Your task to perform on an android device: open app "DoorDash - Food Delivery" (install if not already installed), go to login, and select forgot password Image 0: 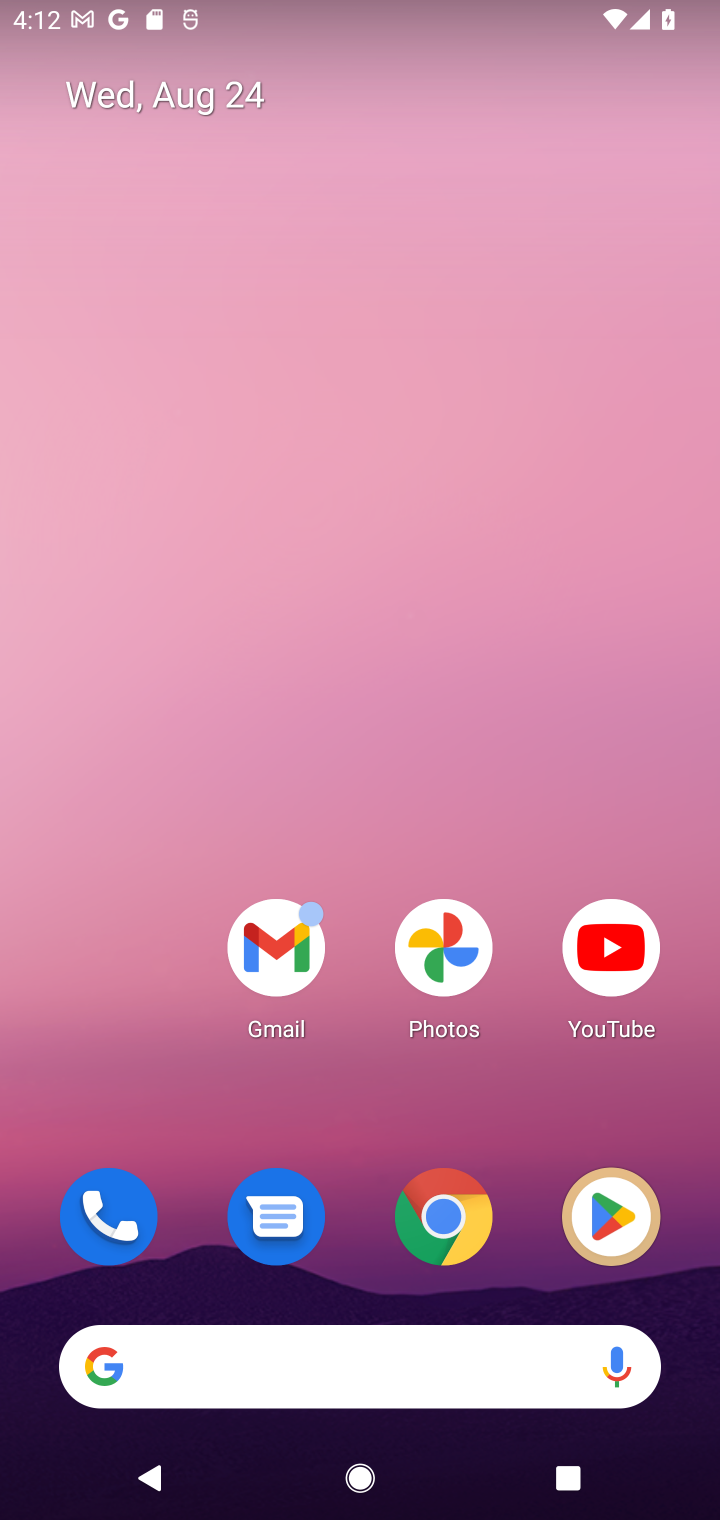
Step 0: click (612, 1211)
Your task to perform on an android device: open app "DoorDash - Food Delivery" (install if not already installed), go to login, and select forgot password Image 1: 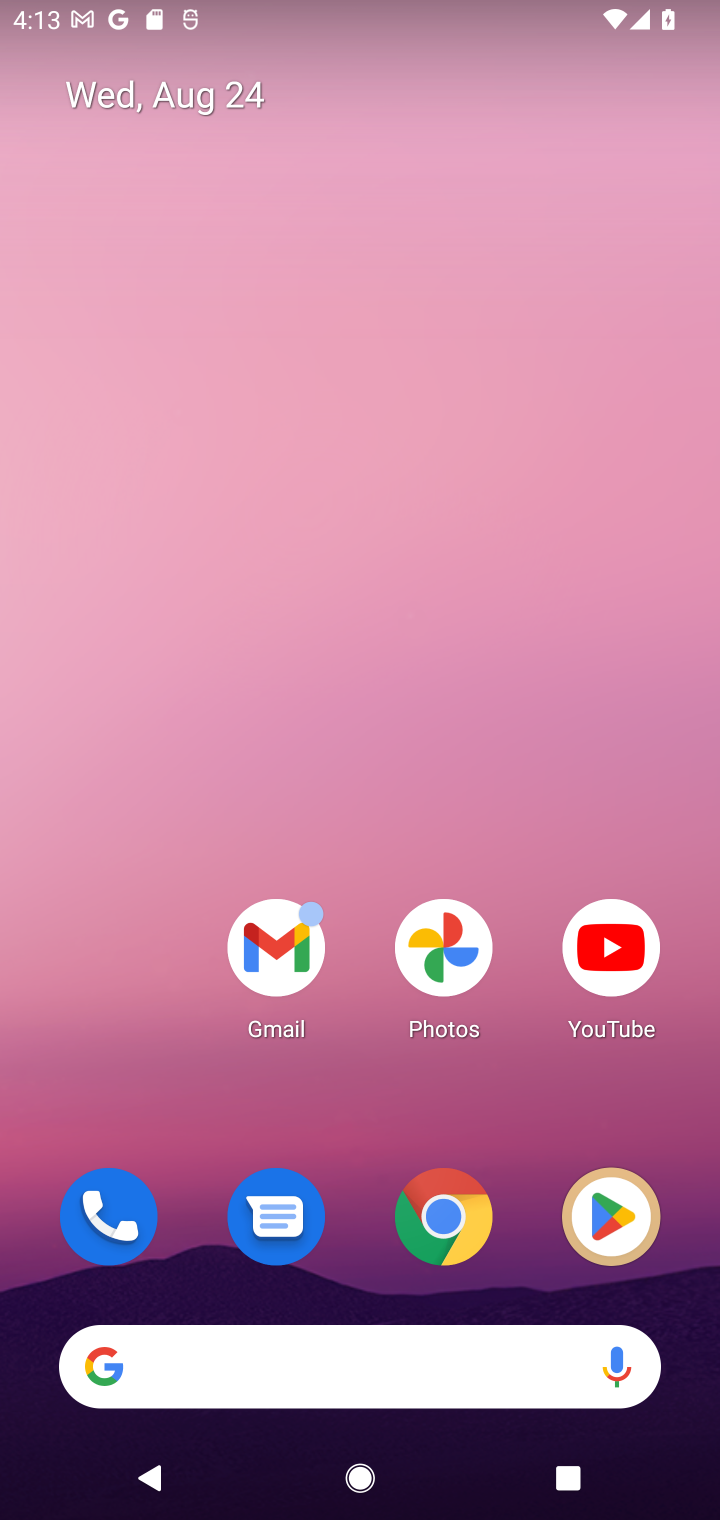
Step 1: click (569, 1233)
Your task to perform on an android device: open app "DoorDash - Food Delivery" (install if not already installed), go to login, and select forgot password Image 2: 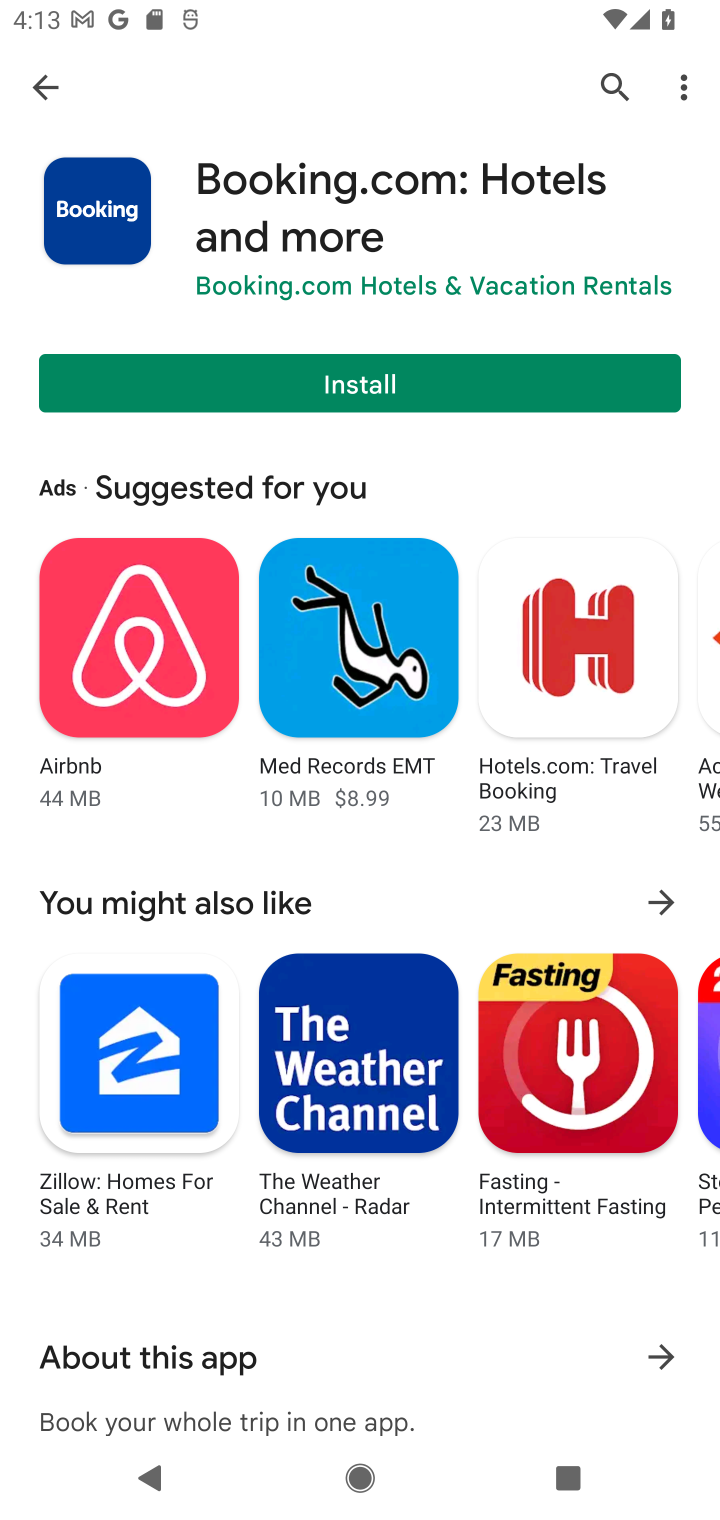
Step 2: click (609, 89)
Your task to perform on an android device: open app "DoorDash - Food Delivery" (install if not already installed), go to login, and select forgot password Image 3: 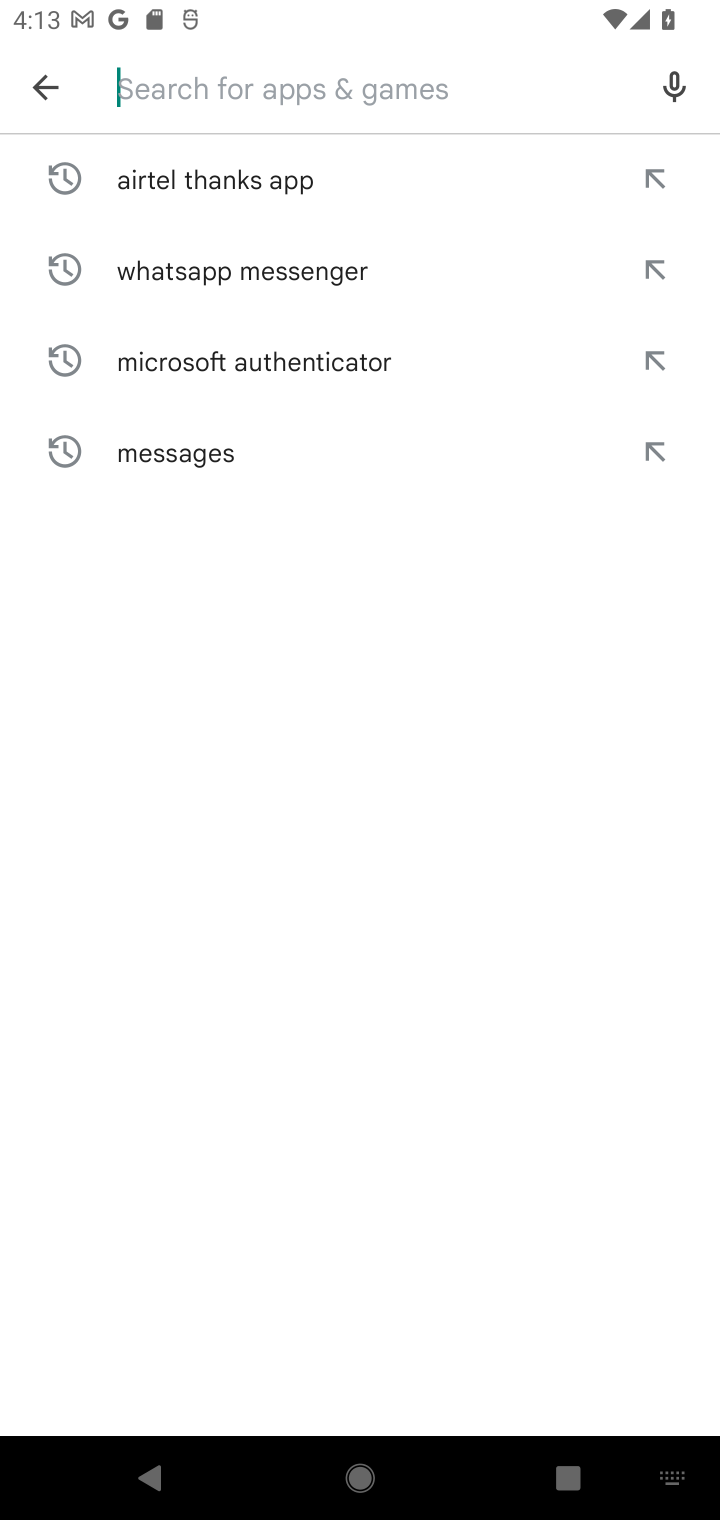
Step 3: type "DoorDash - Food Delivery"
Your task to perform on an android device: open app "DoorDash - Food Delivery" (install if not already installed), go to login, and select forgot password Image 4: 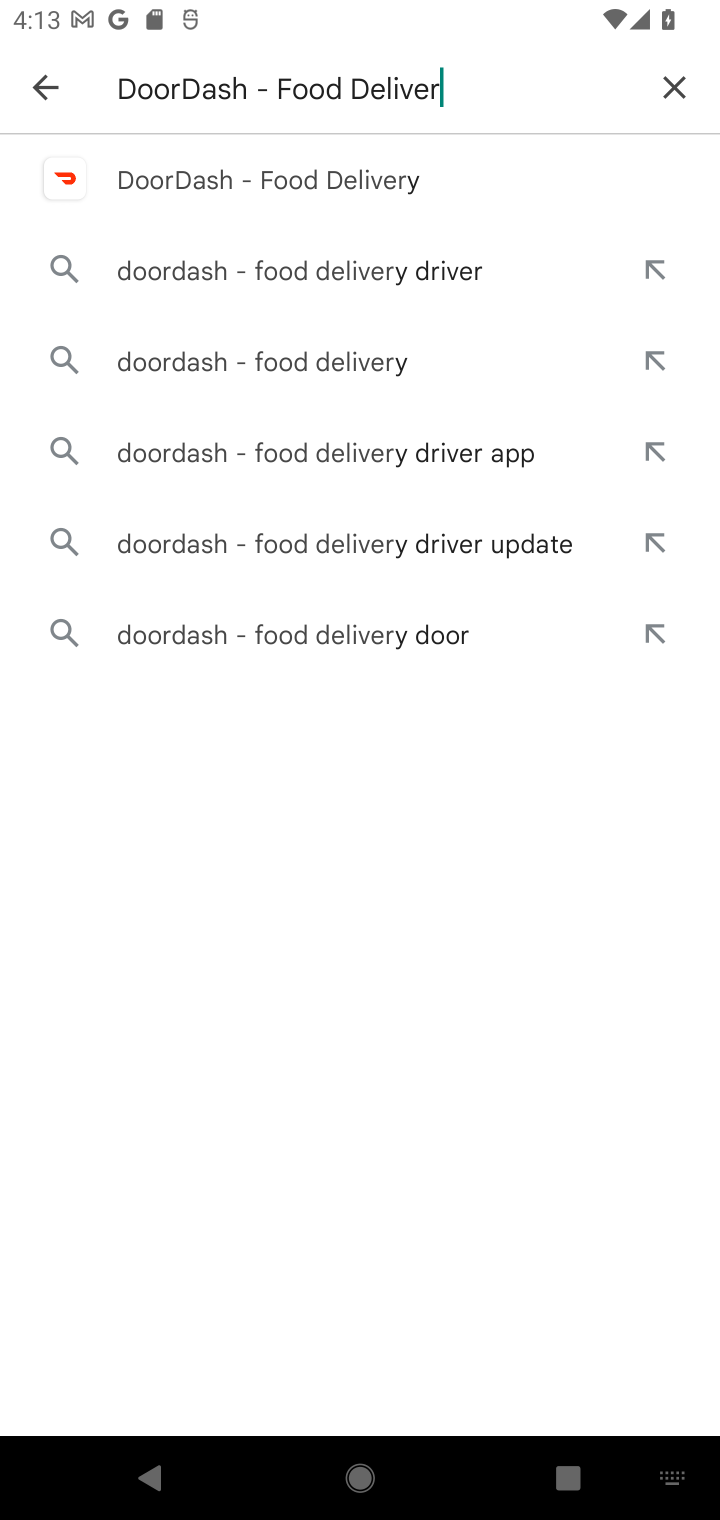
Step 4: type ""
Your task to perform on an android device: open app "DoorDash - Food Delivery" (install if not already installed), go to login, and select forgot password Image 5: 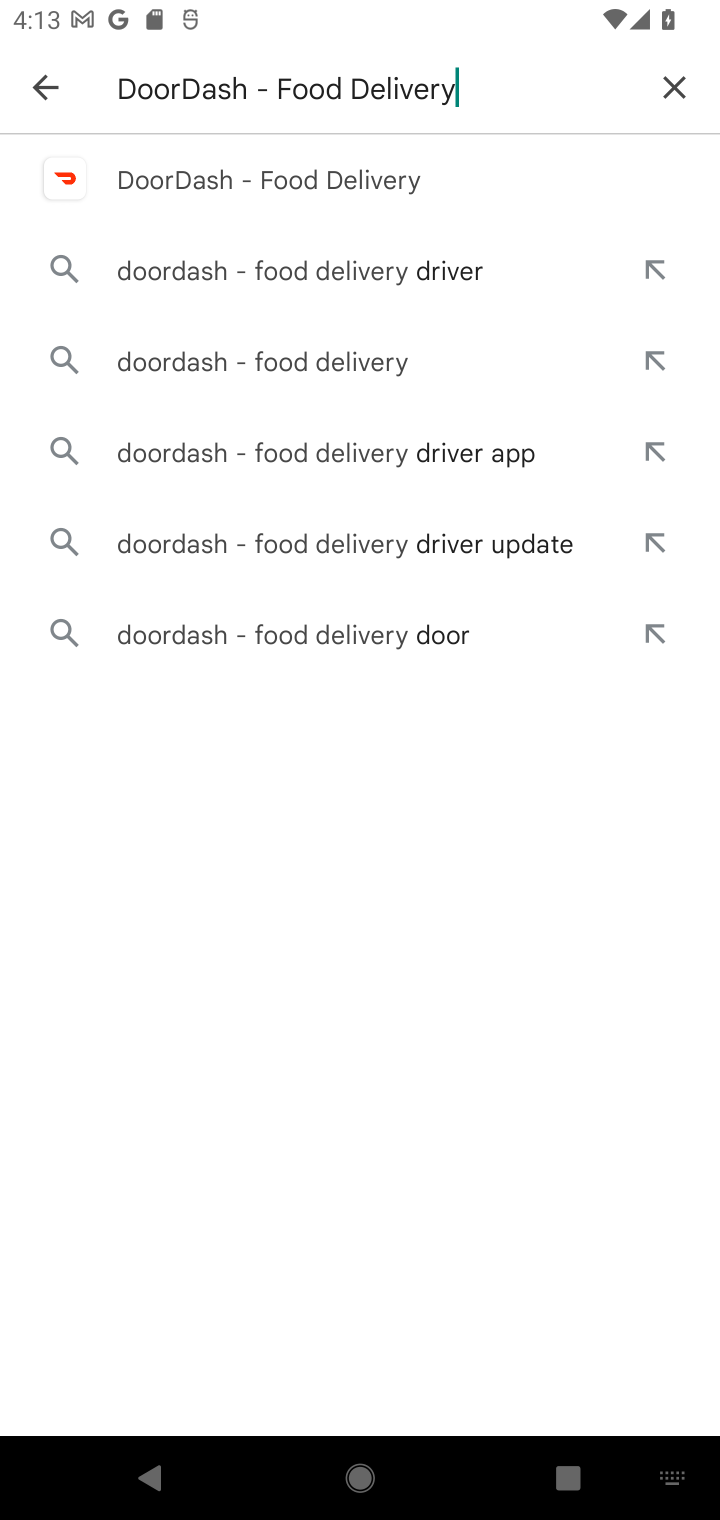
Step 5: click (287, 200)
Your task to perform on an android device: open app "DoorDash - Food Delivery" (install if not already installed), go to login, and select forgot password Image 6: 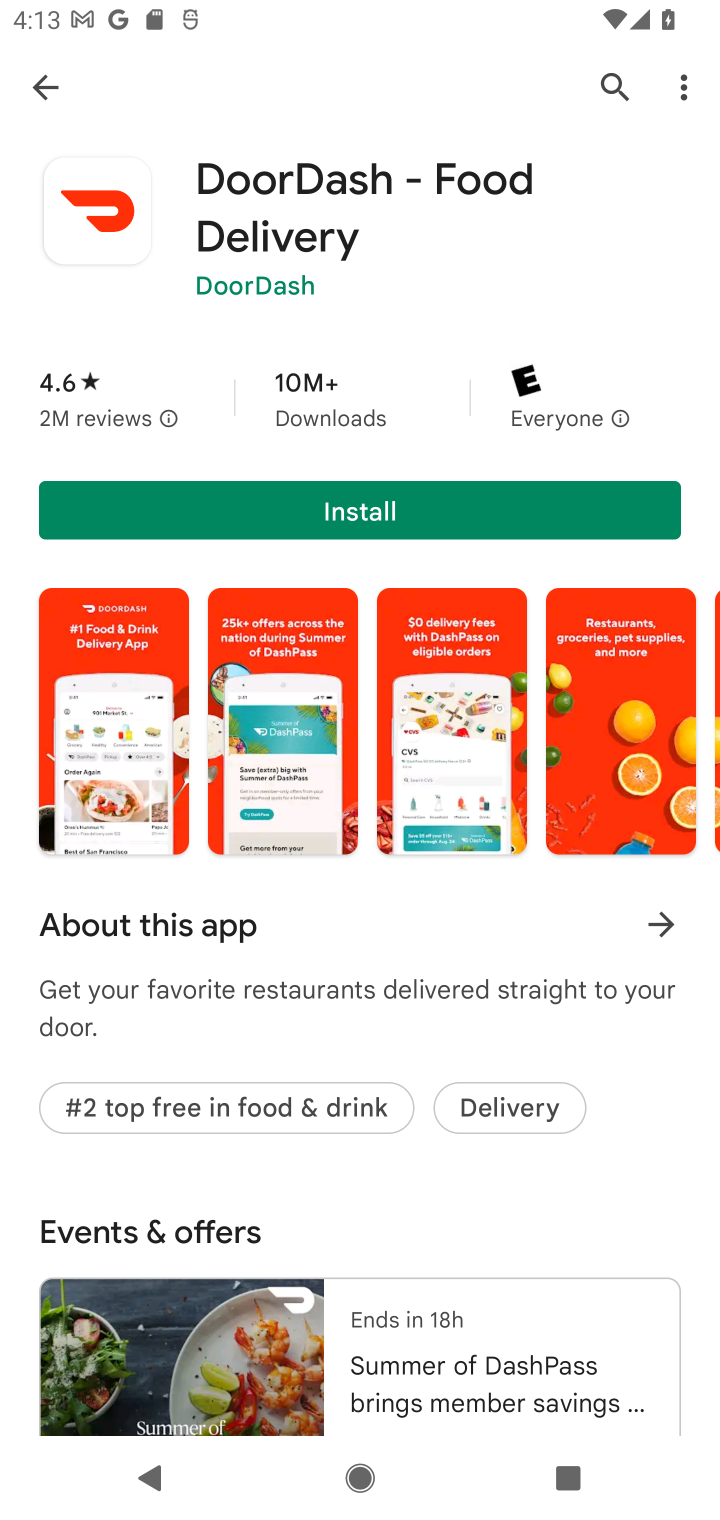
Step 6: click (373, 509)
Your task to perform on an android device: open app "DoorDash - Food Delivery" (install if not already installed), go to login, and select forgot password Image 7: 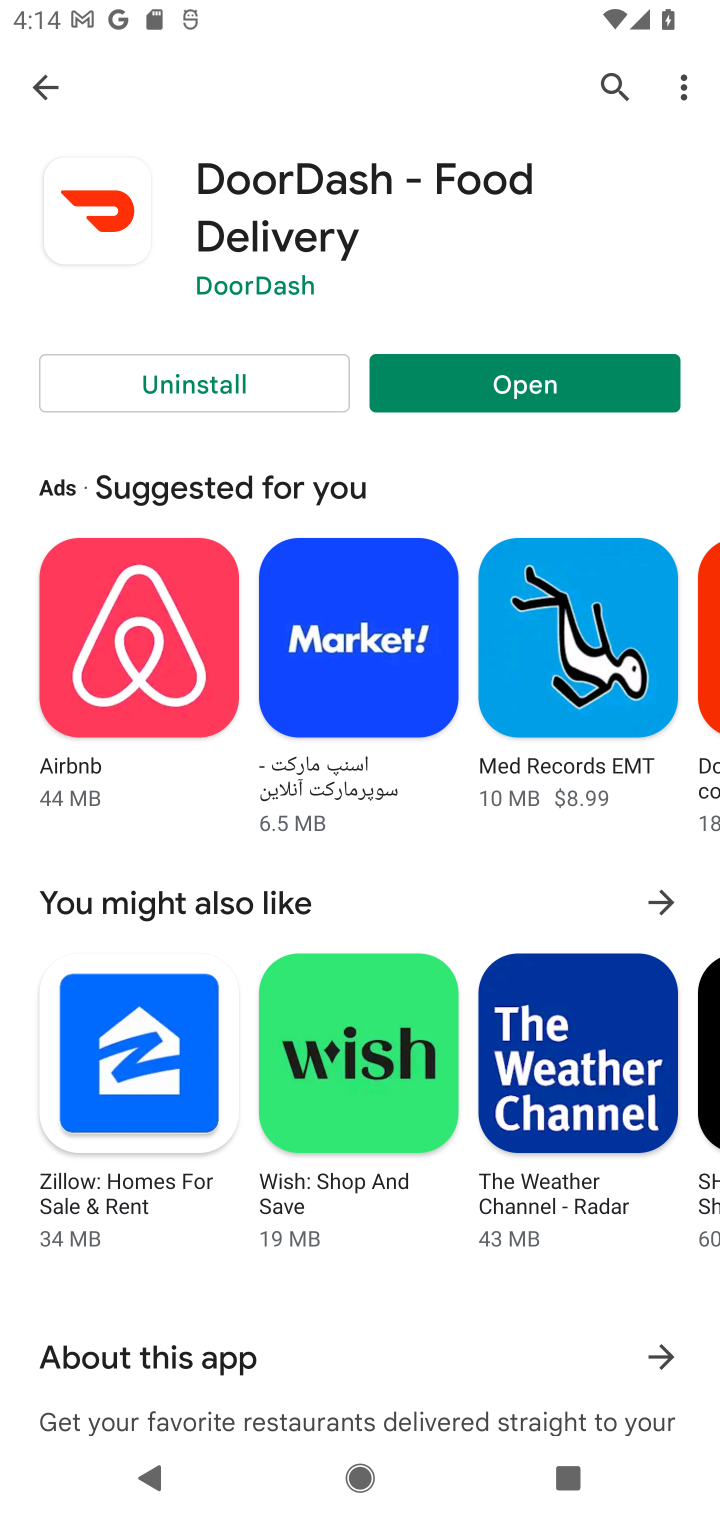
Step 7: click (514, 375)
Your task to perform on an android device: open app "DoorDash - Food Delivery" (install if not already installed), go to login, and select forgot password Image 8: 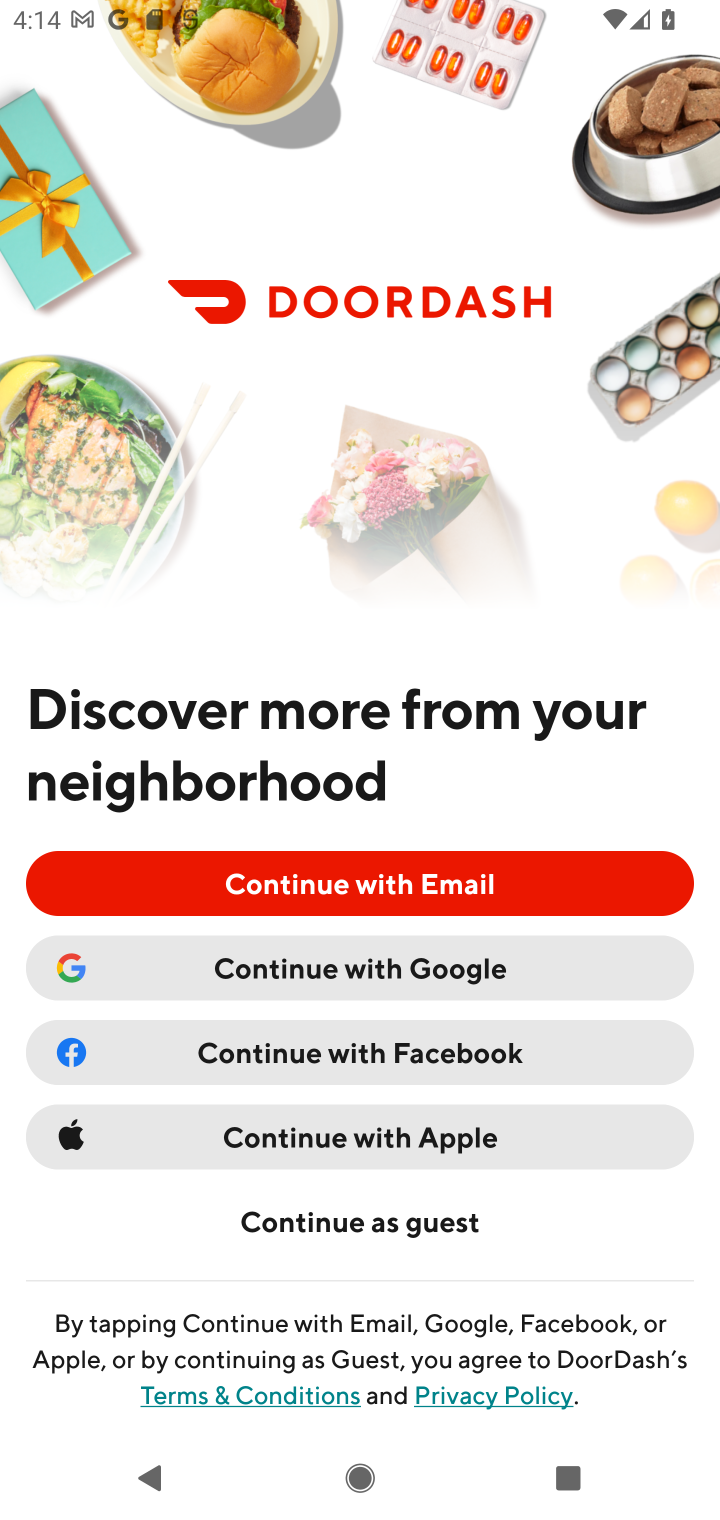
Step 8: task complete